Your task to perform on an android device: check out phone information Image 0: 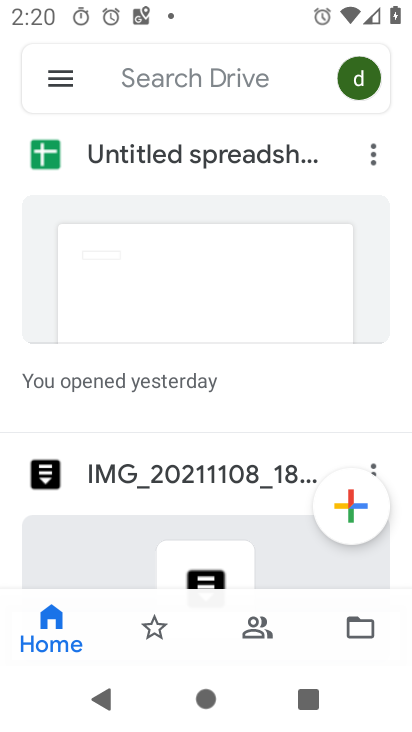
Step 0: press home button
Your task to perform on an android device: check out phone information Image 1: 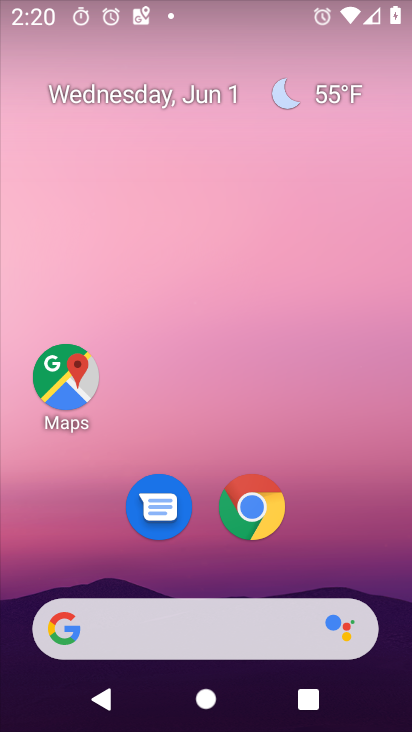
Step 1: drag from (350, 569) to (274, 0)
Your task to perform on an android device: check out phone information Image 2: 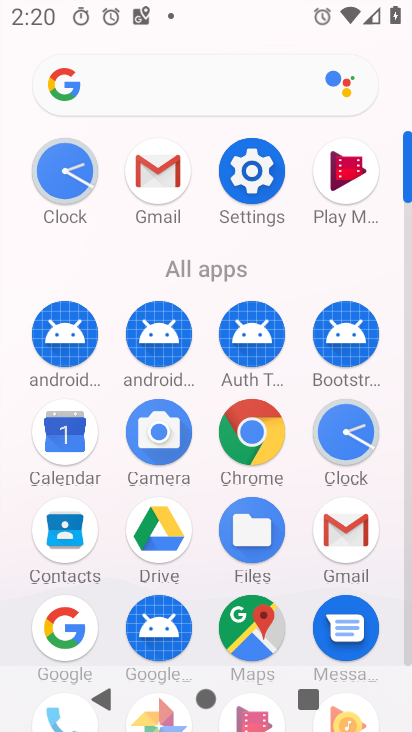
Step 2: click (249, 175)
Your task to perform on an android device: check out phone information Image 3: 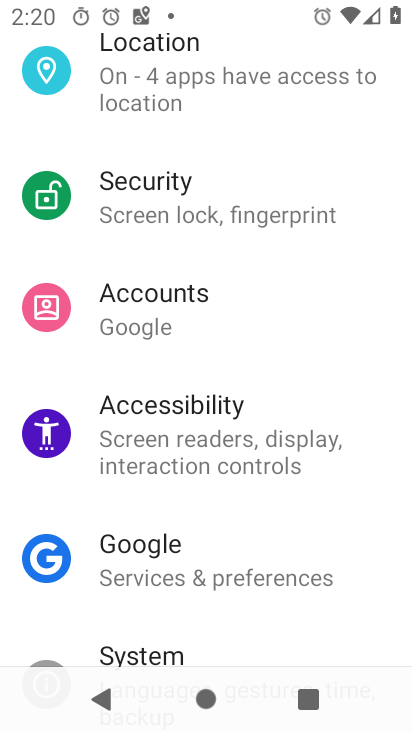
Step 3: drag from (325, 598) to (299, 53)
Your task to perform on an android device: check out phone information Image 4: 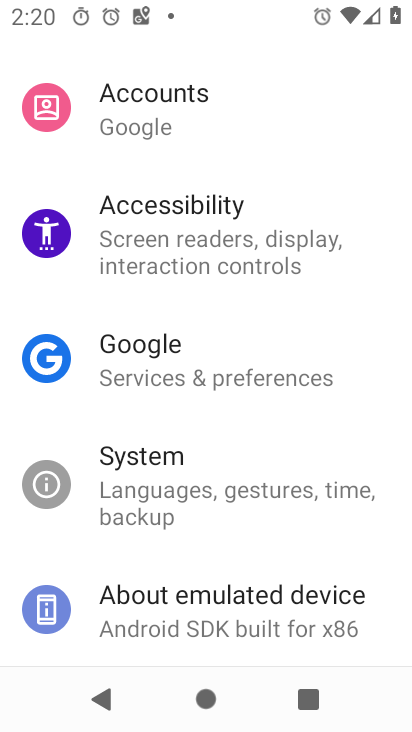
Step 4: click (226, 611)
Your task to perform on an android device: check out phone information Image 5: 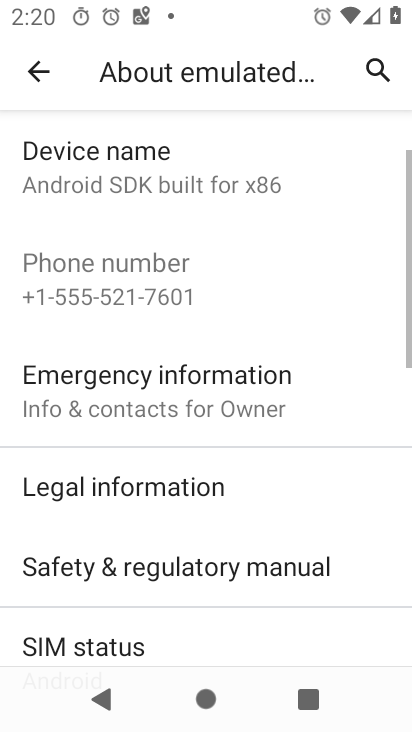
Step 5: task complete